Your task to perform on an android device: Open battery settings Image 0: 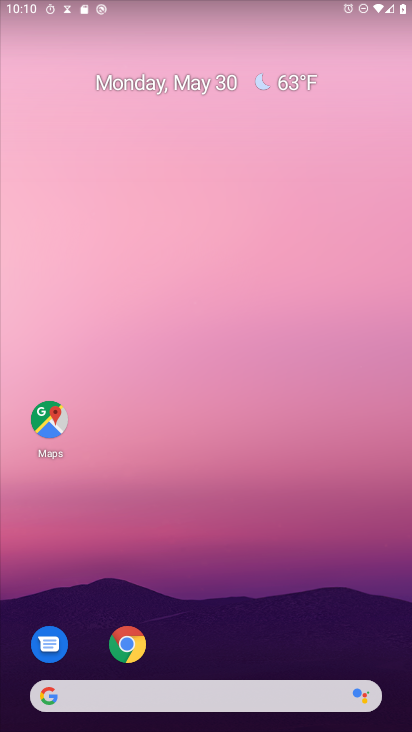
Step 0: drag from (156, 641) to (228, 38)
Your task to perform on an android device: Open battery settings Image 1: 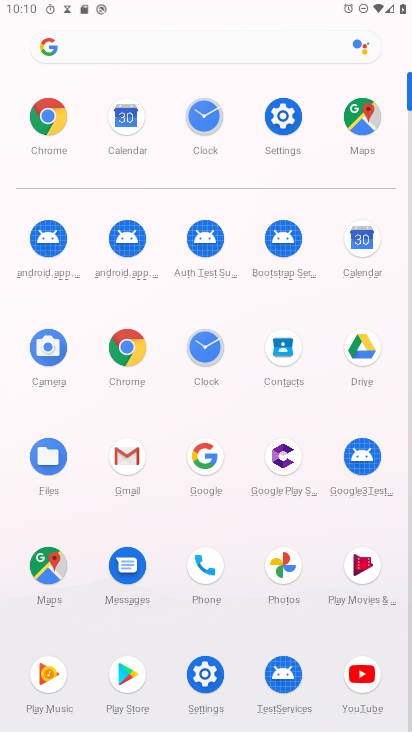
Step 1: click (283, 119)
Your task to perform on an android device: Open battery settings Image 2: 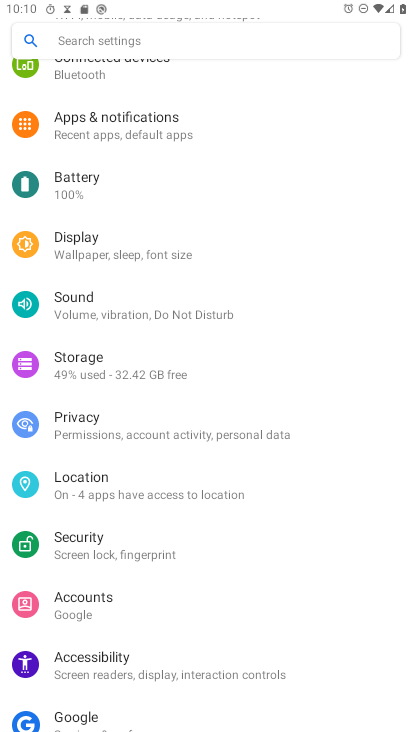
Step 2: click (90, 178)
Your task to perform on an android device: Open battery settings Image 3: 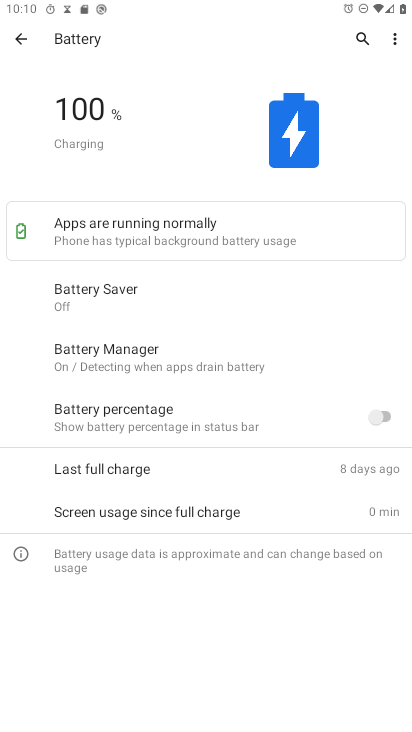
Step 3: task complete